Your task to perform on an android device: refresh tabs in the chrome app Image 0: 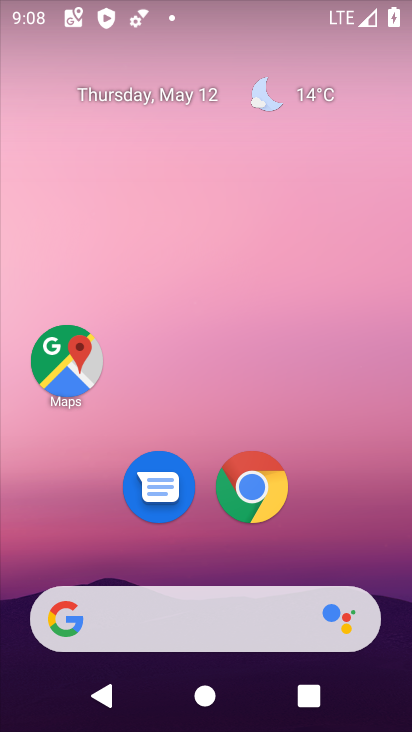
Step 0: click (255, 484)
Your task to perform on an android device: refresh tabs in the chrome app Image 1: 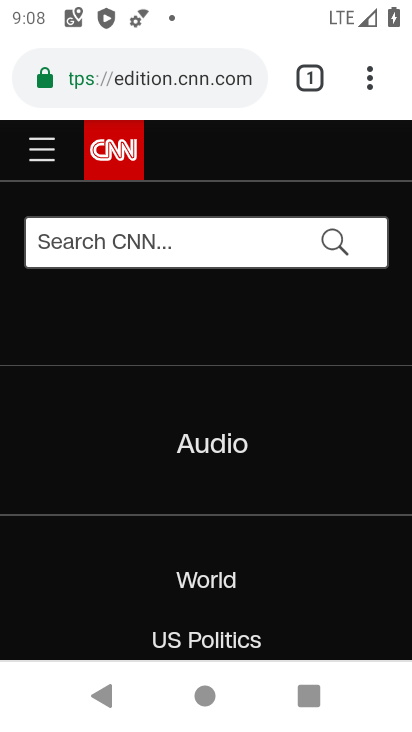
Step 1: click (372, 84)
Your task to perform on an android device: refresh tabs in the chrome app Image 2: 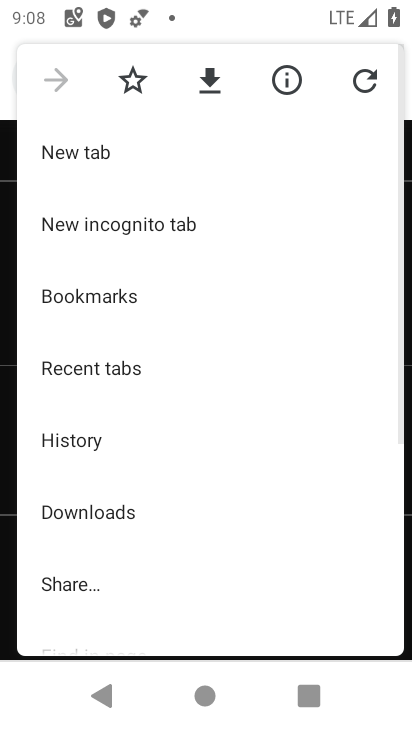
Step 2: click (361, 81)
Your task to perform on an android device: refresh tabs in the chrome app Image 3: 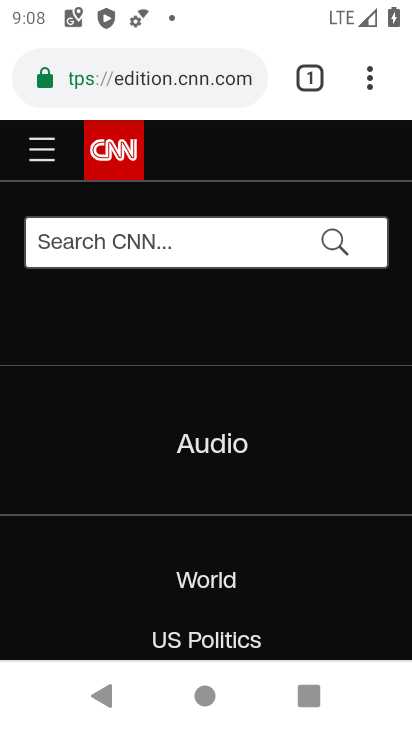
Step 3: task complete